Your task to perform on an android device: View the shopping cart on newegg. Search for "macbook" on newegg, select the first entry, add it to the cart, then select checkout. Image 0: 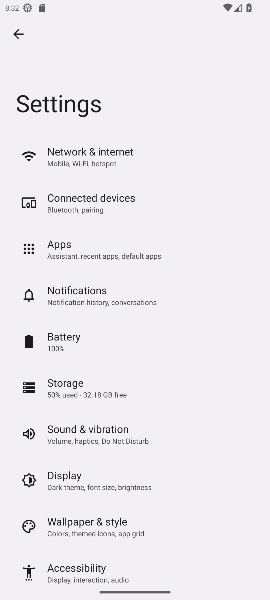
Step 0: press home button
Your task to perform on an android device: View the shopping cart on newegg. Search for "macbook" on newegg, select the first entry, add it to the cart, then select checkout. Image 1: 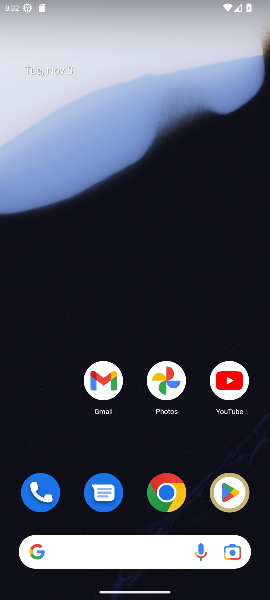
Step 1: click (138, 565)
Your task to perform on an android device: View the shopping cart on newegg. Search for "macbook" on newegg, select the first entry, add it to the cart, then select checkout. Image 2: 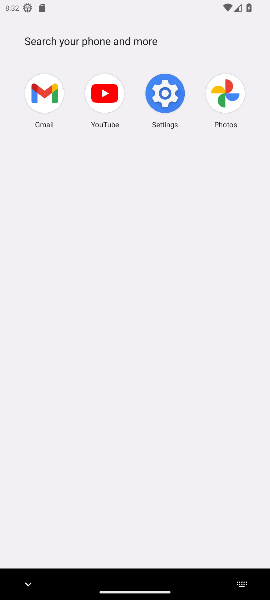
Step 2: type "newegg"
Your task to perform on an android device: View the shopping cart on newegg. Search for "macbook" on newegg, select the first entry, add it to the cart, then select checkout. Image 3: 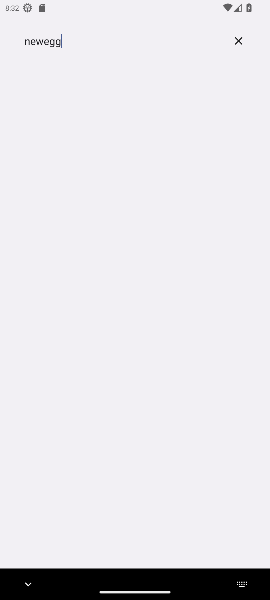
Step 3: task complete